Your task to perform on an android device: check data usage Image 0: 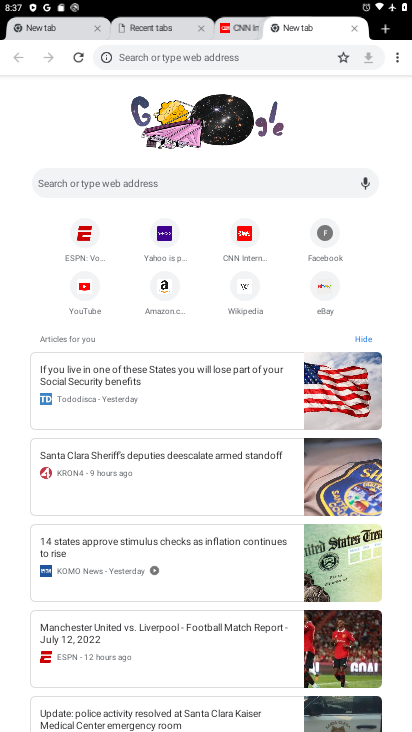
Step 0: drag from (272, 577) to (216, 150)
Your task to perform on an android device: check data usage Image 1: 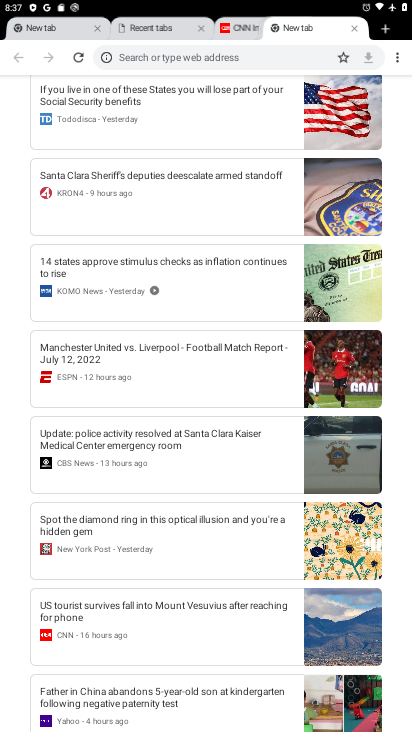
Step 1: press back button
Your task to perform on an android device: check data usage Image 2: 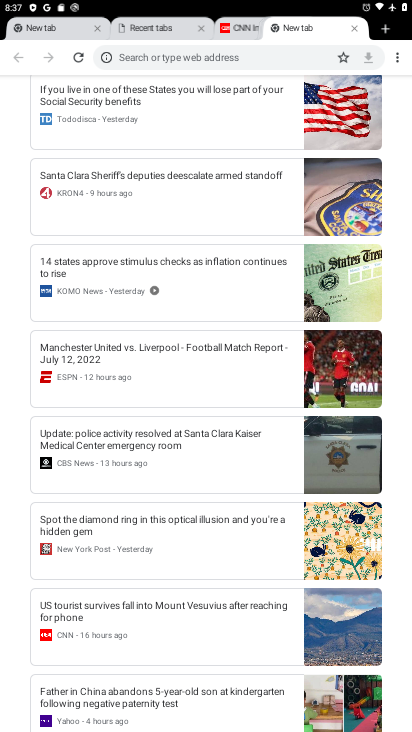
Step 2: press back button
Your task to perform on an android device: check data usage Image 3: 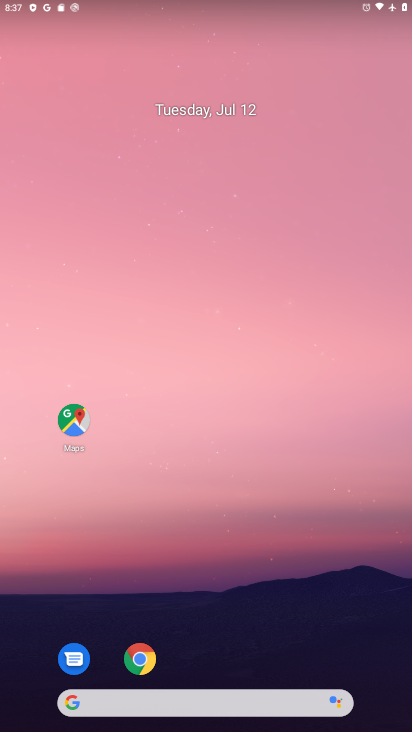
Step 3: drag from (270, 594) to (176, 168)
Your task to perform on an android device: check data usage Image 4: 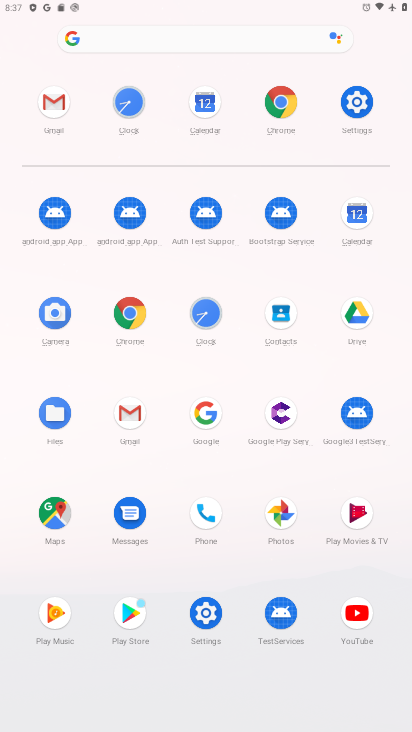
Step 4: click (203, 610)
Your task to perform on an android device: check data usage Image 5: 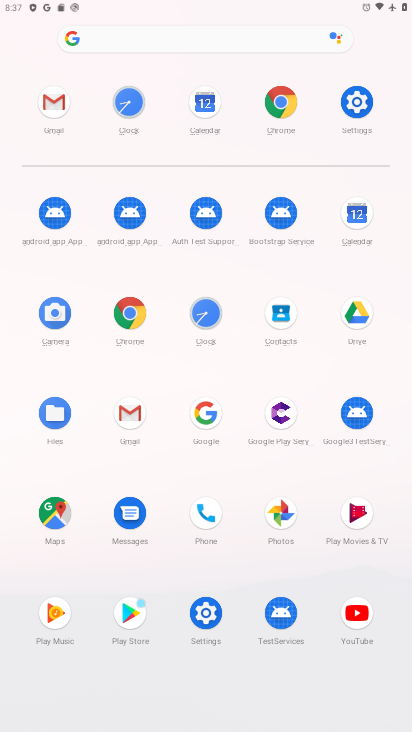
Step 5: click (203, 605)
Your task to perform on an android device: check data usage Image 6: 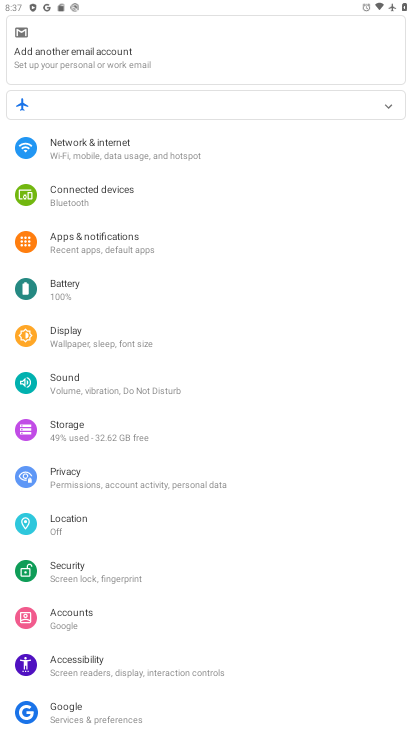
Step 6: click (85, 143)
Your task to perform on an android device: check data usage Image 7: 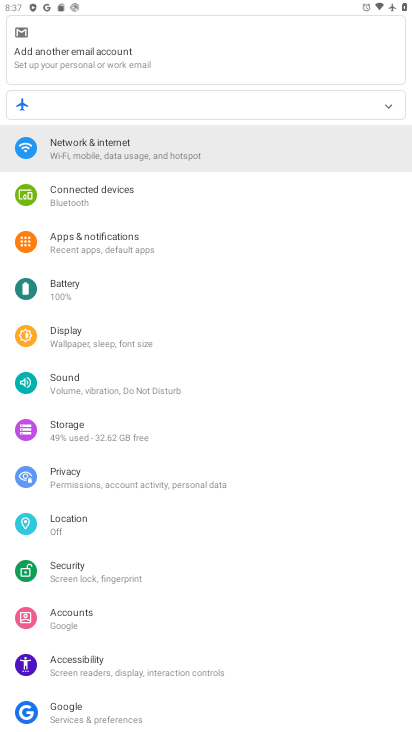
Step 7: click (85, 143)
Your task to perform on an android device: check data usage Image 8: 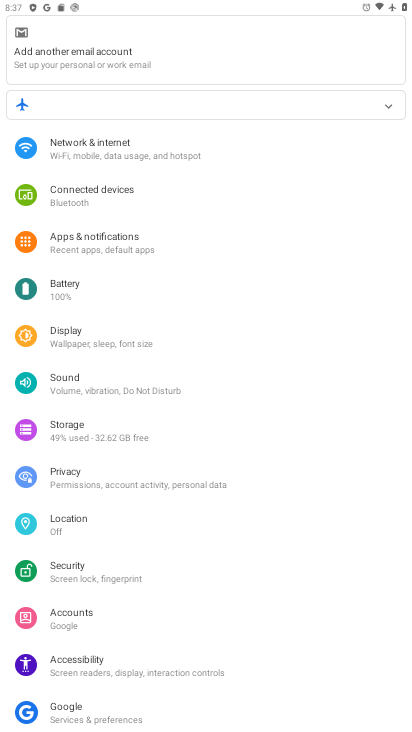
Step 8: click (85, 143)
Your task to perform on an android device: check data usage Image 9: 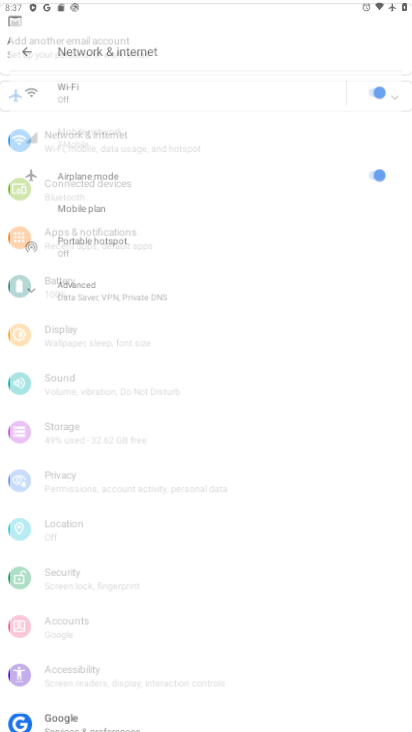
Step 9: click (85, 143)
Your task to perform on an android device: check data usage Image 10: 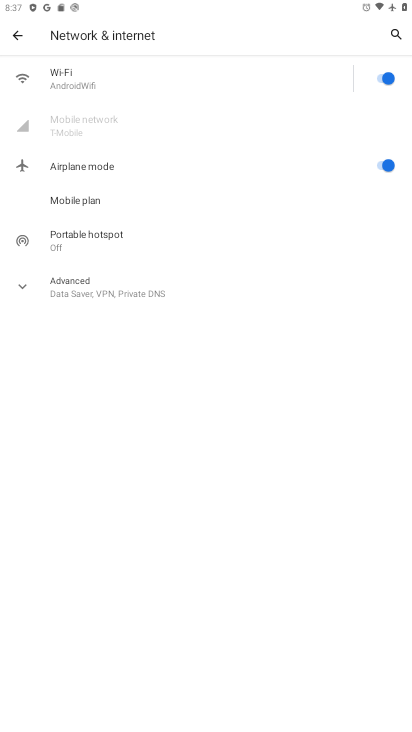
Step 10: click (383, 161)
Your task to perform on an android device: check data usage Image 11: 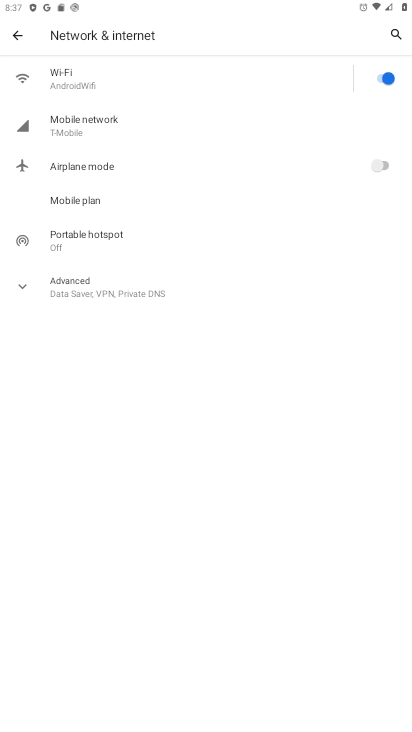
Step 11: click (99, 116)
Your task to perform on an android device: check data usage Image 12: 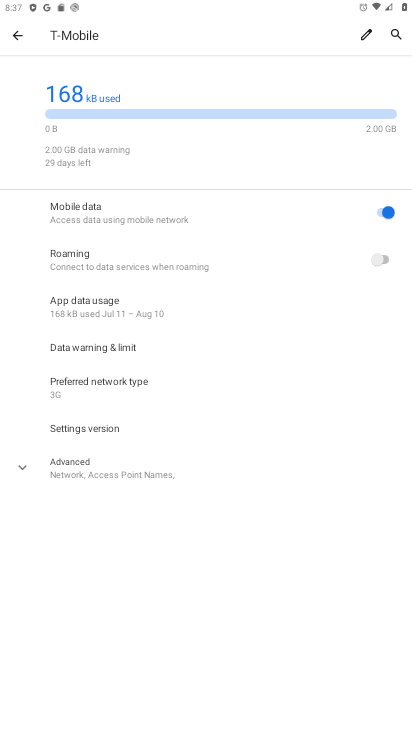
Step 12: task complete